Your task to perform on an android device: Open the map Image 0: 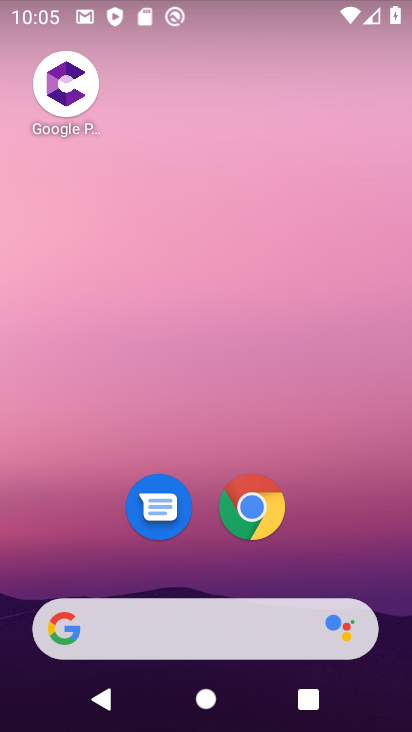
Step 0: drag from (331, 523) to (317, 101)
Your task to perform on an android device: Open the map Image 1: 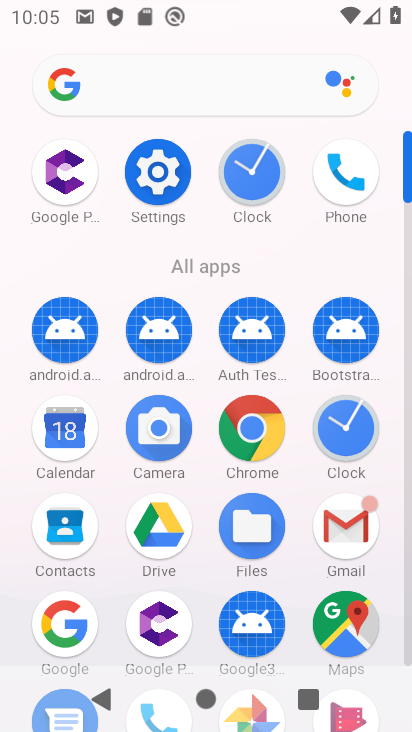
Step 1: click (334, 616)
Your task to perform on an android device: Open the map Image 2: 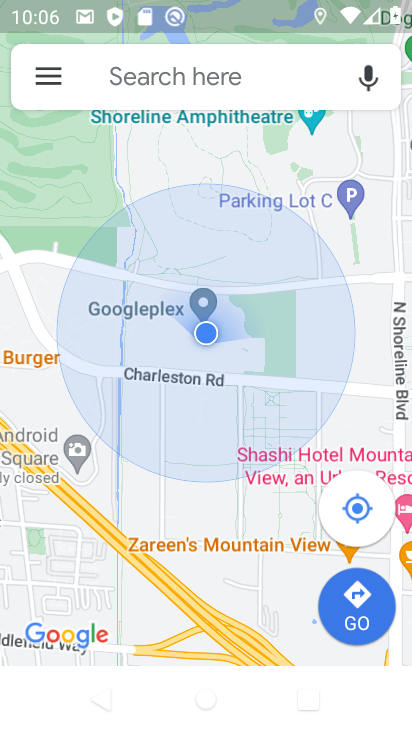
Step 2: task complete